Your task to perform on an android device: Search for flights from NYC to Mexico city Image 0: 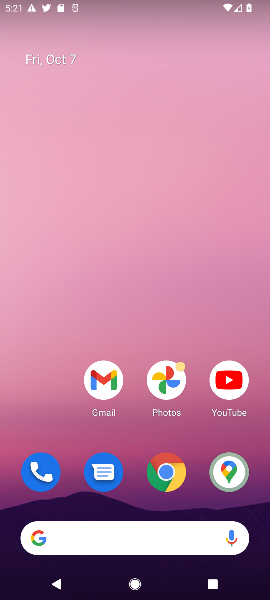
Step 0: click (165, 470)
Your task to perform on an android device: Search for flights from NYC to Mexico city Image 1: 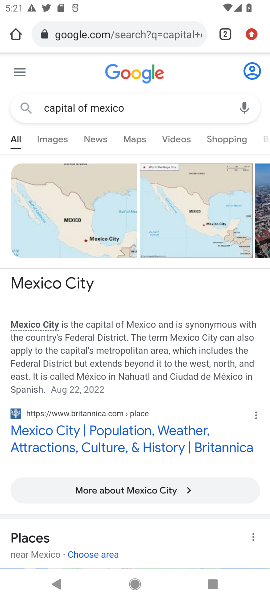
Step 1: click (141, 33)
Your task to perform on an android device: Search for flights from NYC to Mexico city Image 2: 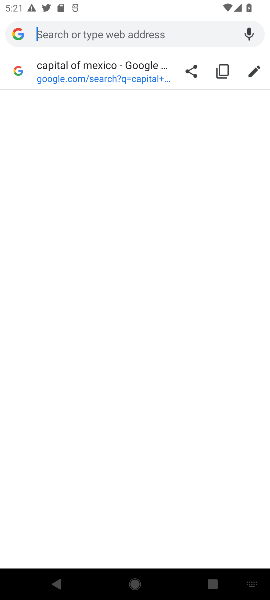
Step 2: type "NYC to Mexico city"
Your task to perform on an android device: Search for flights from NYC to Mexico city Image 3: 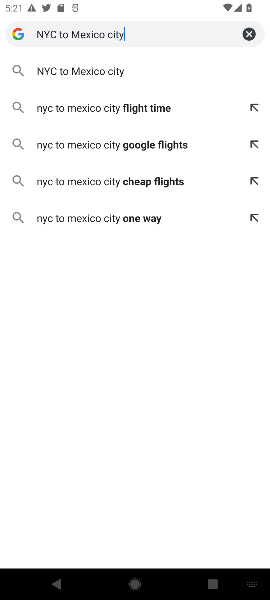
Step 3: type " flights"
Your task to perform on an android device: Search for flights from NYC to Mexico city Image 4: 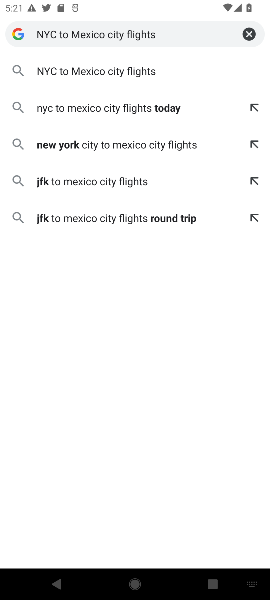
Step 4: press enter
Your task to perform on an android device: Search for flights from NYC to Mexico city Image 5: 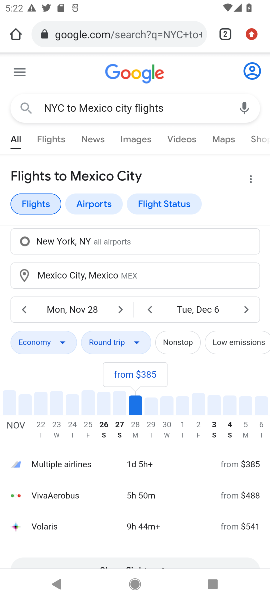
Step 5: drag from (189, 479) to (167, 269)
Your task to perform on an android device: Search for flights from NYC to Mexico city Image 6: 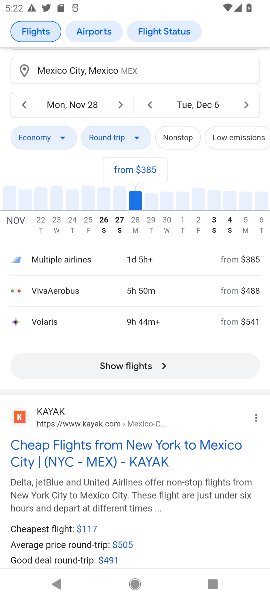
Step 6: click (142, 368)
Your task to perform on an android device: Search for flights from NYC to Mexico city Image 7: 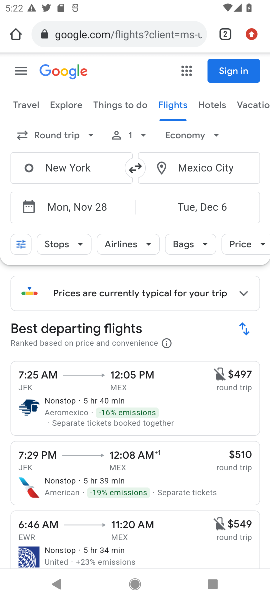
Step 7: task complete